Your task to perform on an android device: Open Google Image 0: 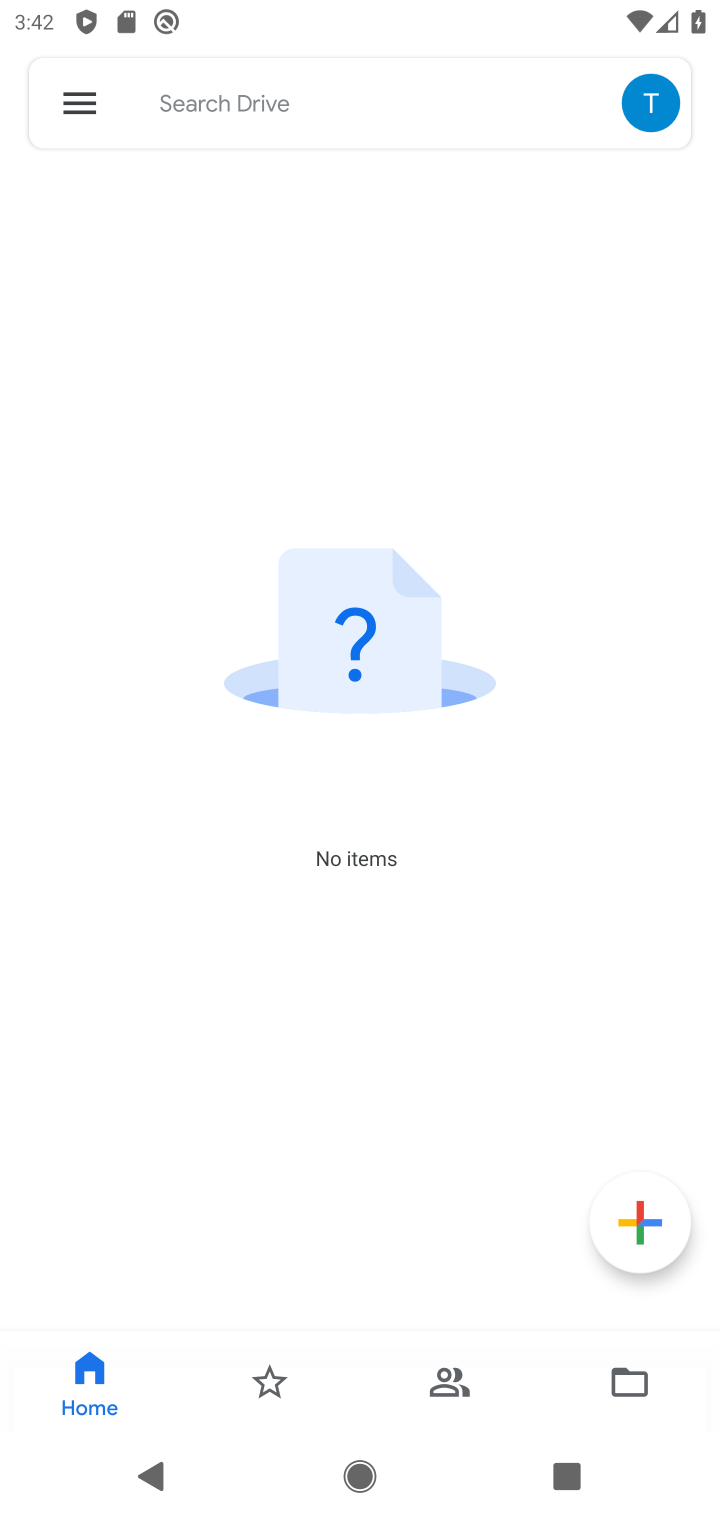
Step 0: press home button
Your task to perform on an android device: Open Google Image 1: 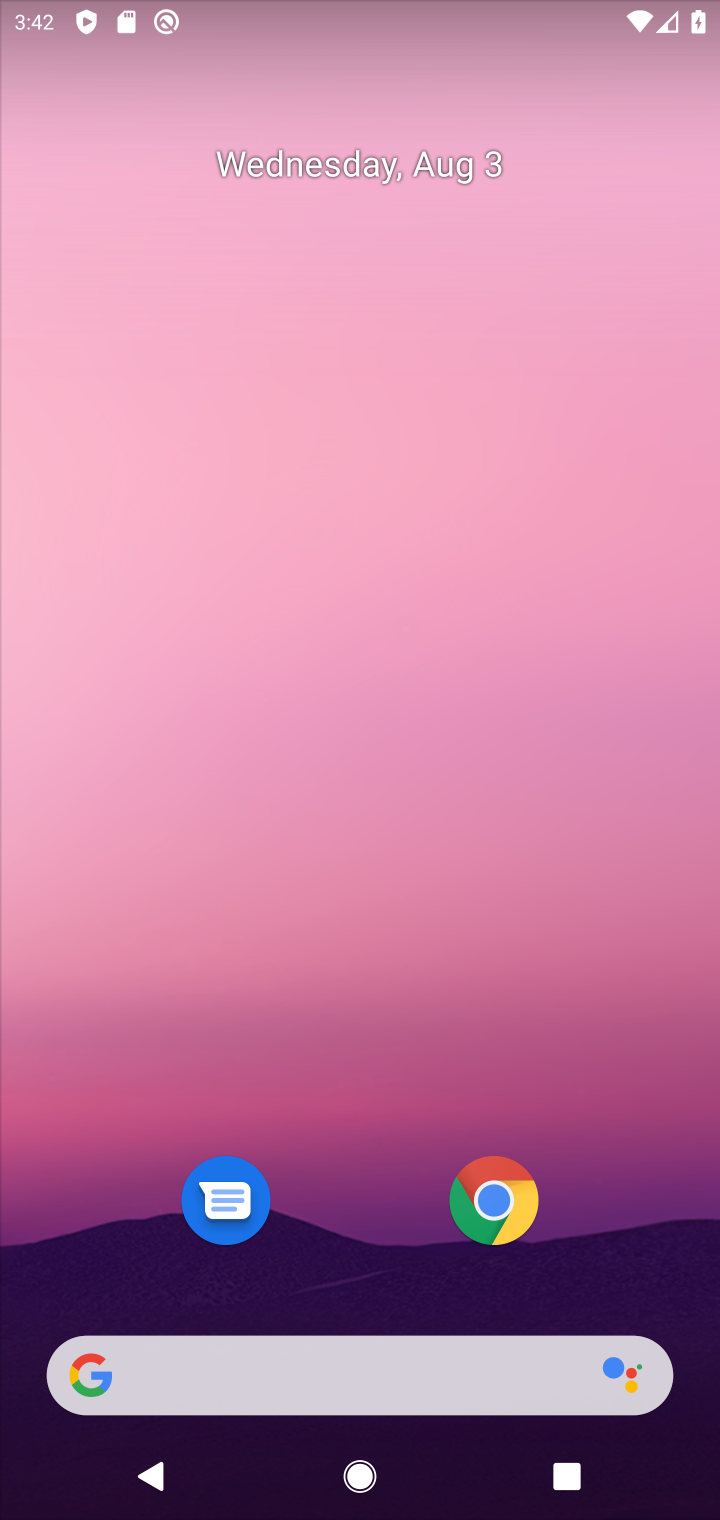
Step 1: click (114, 1369)
Your task to perform on an android device: Open Google Image 2: 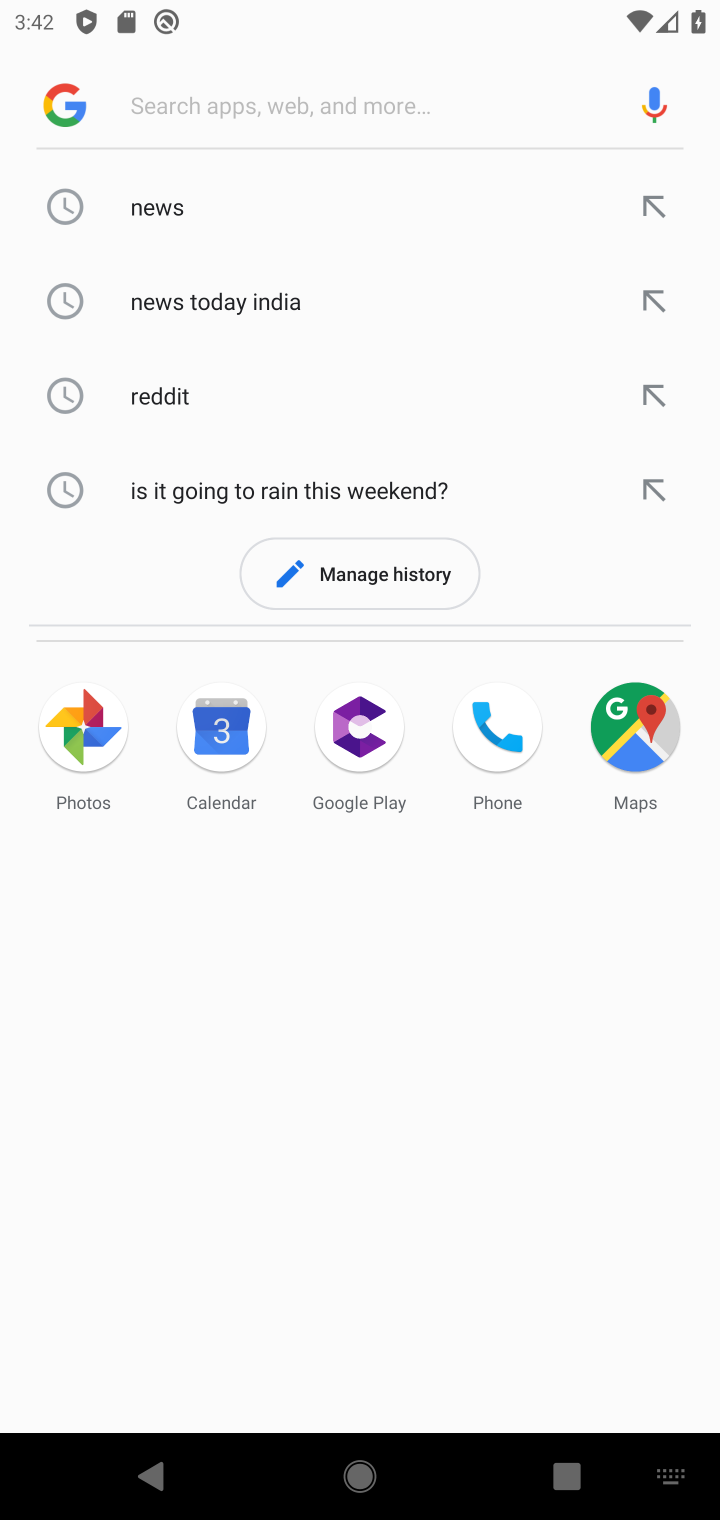
Step 2: click (74, 89)
Your task to perform on an android device: Open Google Image 3: 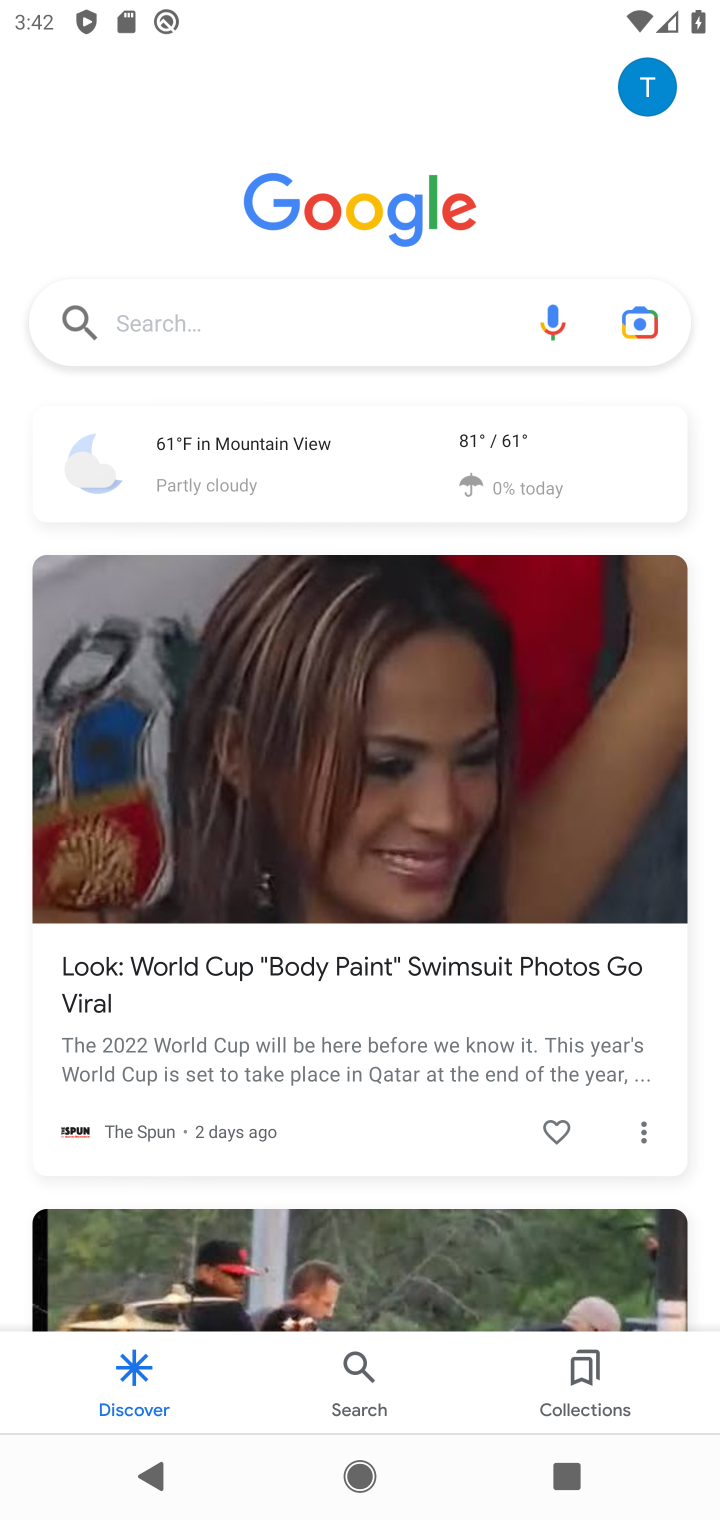
Step 3: task complete